Your task to perform on an android device: Clear the cart on bestbuy.com. Add "razer blade" to the cart on bestbuy.com Image 0: 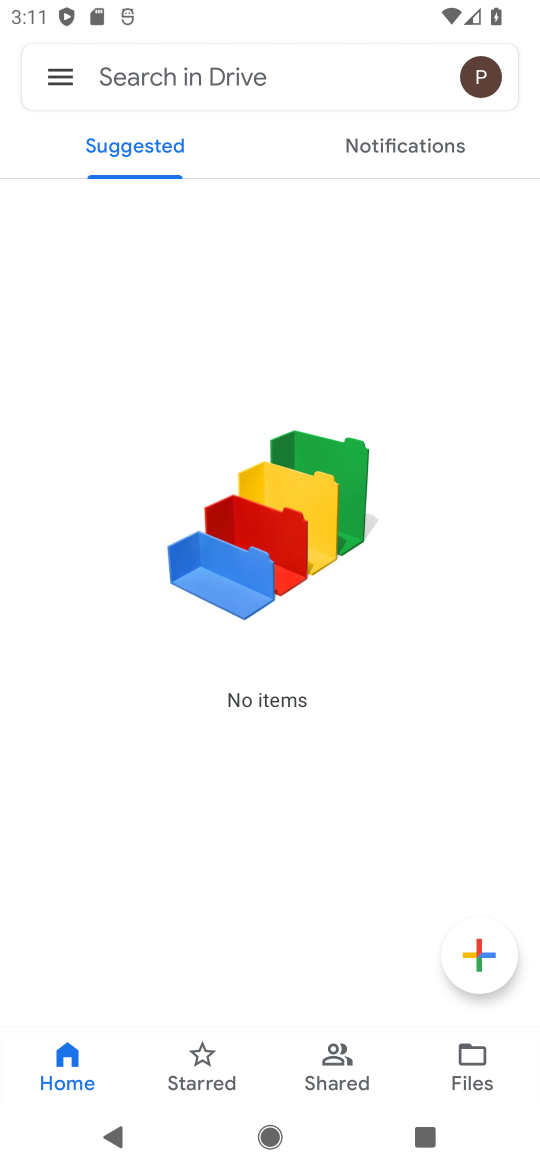
Step 0: press home button
Your task to perform on an android device: Clear the cart on bestbuy.com. Add "razer blade" to the cart on bestbuy.com Image 1: 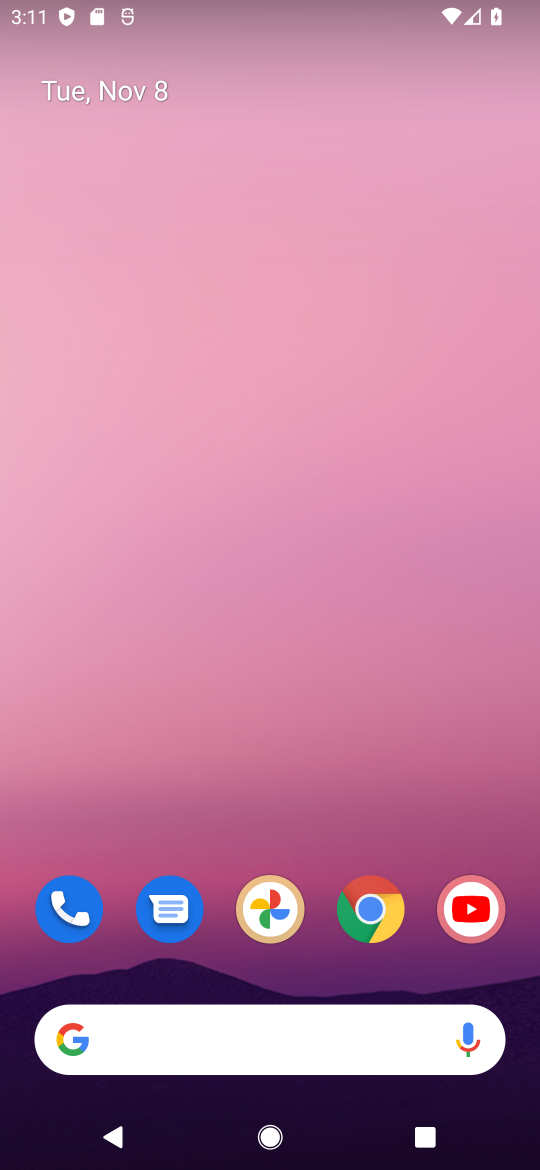
Step 1: click (388, 893)
Your task to perform on an android device: Clear the cart on bestbuy.com. Add "razer blade" to the cart on bestbuy.com Image 2: 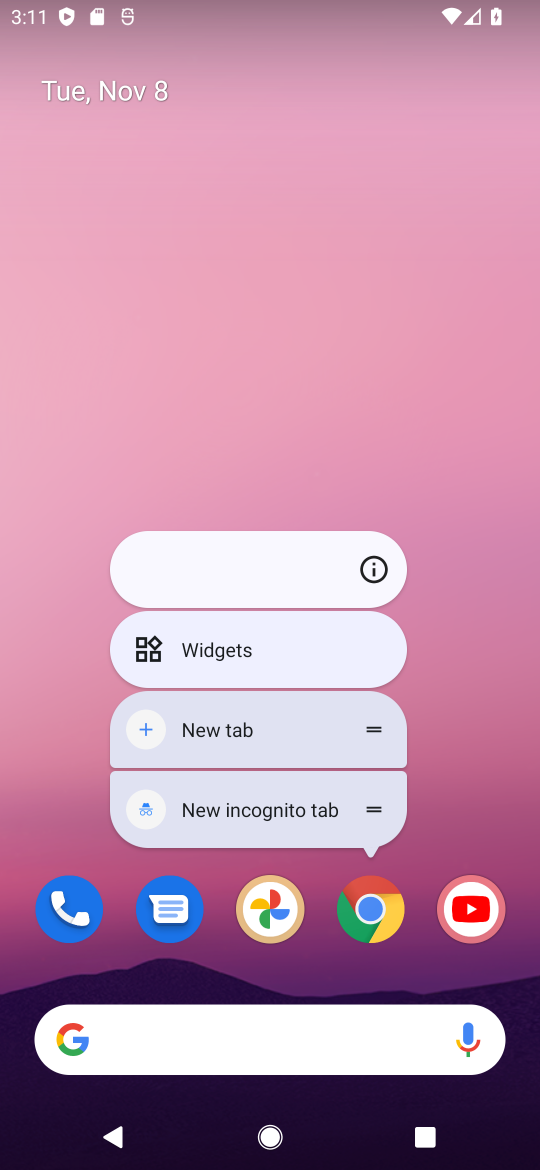
Step 2: click (375, 907)
Your task to perform on an android device: Clear the cart on bestbuy.com. Add "razer blade" to the cart on bestbuy.com Image 3: 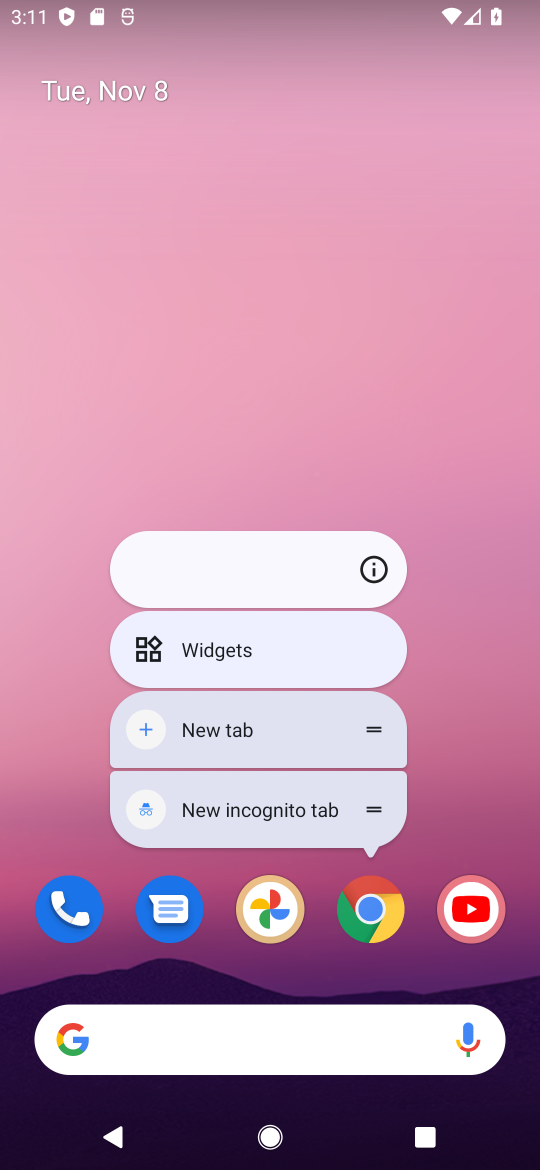
Step 3: click (365, 916)
Your task to perform on an android device: Clear the cart on bestbuy.com. Add "razer blade" to the cart on bestbuy.com Image 4: 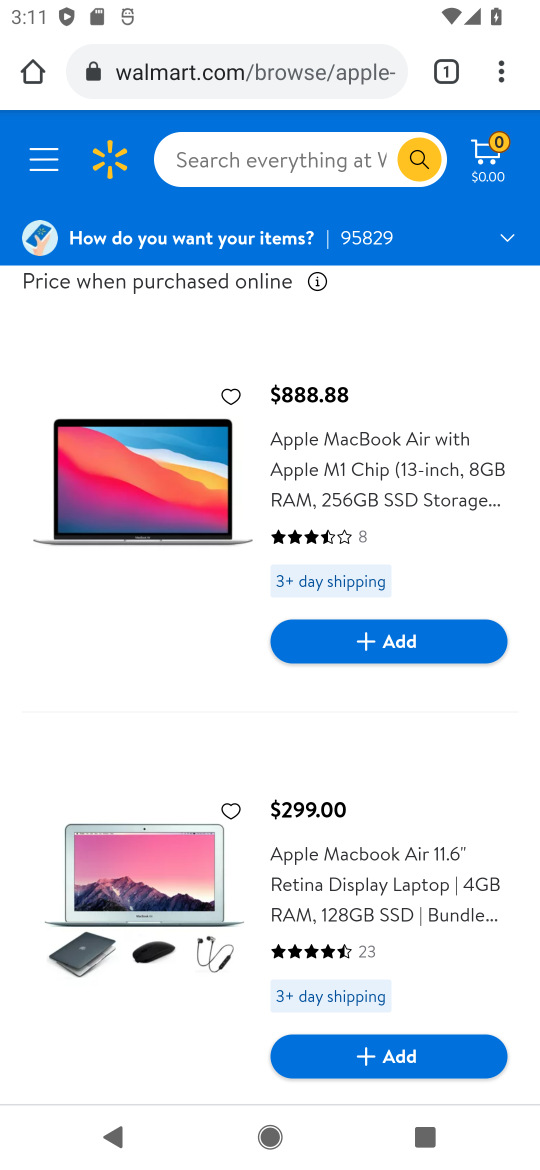
Step 4: click (297, 66)
Your task to perform on an android device: Clear the cart on bestbuy.com. Add "razer blade" to the cart on bestbuy.com Image 5: 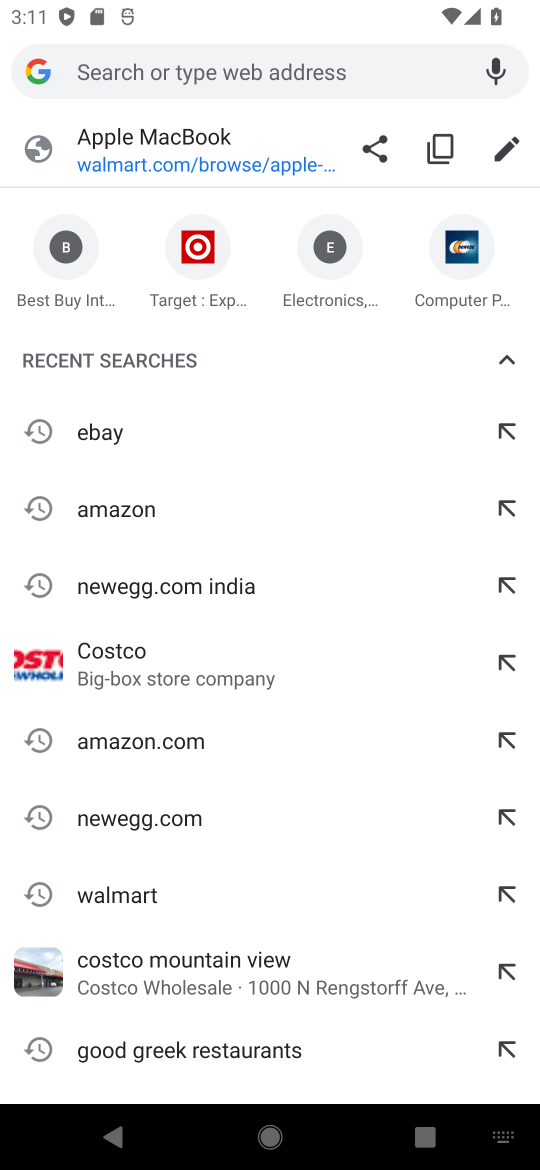
Step 5: type " bestbuy.com"
Your task to perform on an android device: Clear the cart on bestbuy.com. Add "razer blade" to the cart on bestbuy.com Image 6: 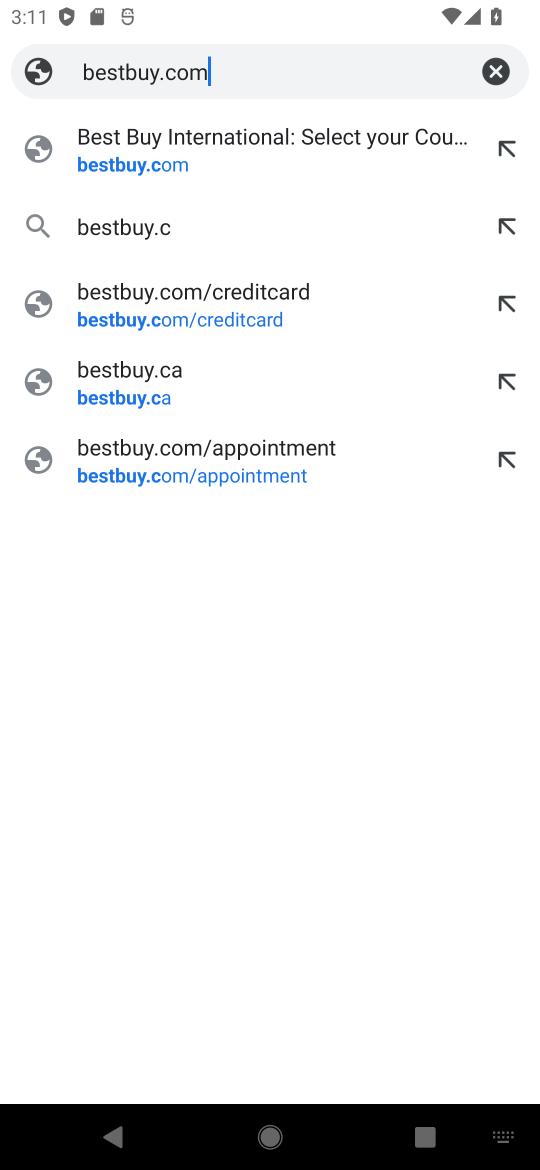
Step 6: press enter
Your task to perform on an android device: Clear the cart on bestbuy.com. Add "razer blade" to the cart on bestbuy.com Image 7: 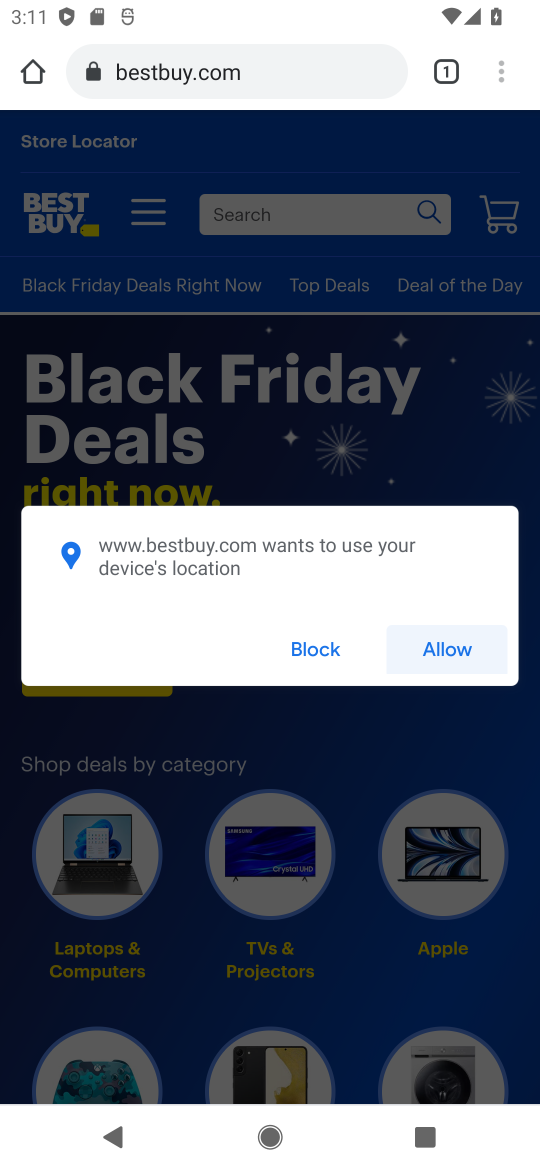
Step 7: click (333, 640)
Your task to perform on an android device: Clear the cart on bestbuy.com. Add "razer blade" to the cart on bestbuy.com Image 8: 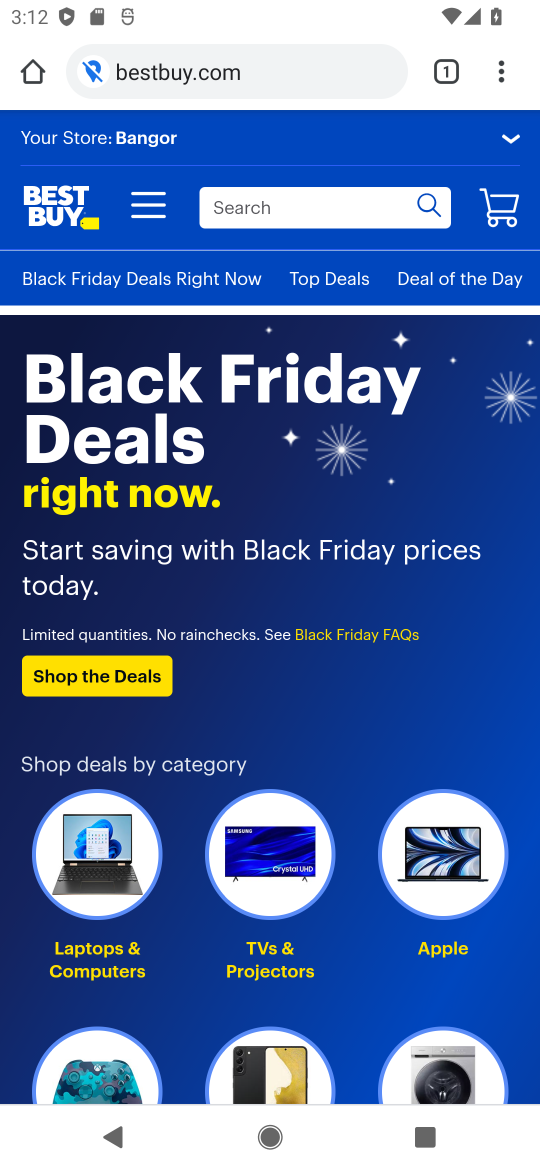
Step 8: click (305, 207)
Your task to perform on an android device: Clear the cart on bestbuy.com. Add "razer blade" to the cart on bestbuy.com Image 9: 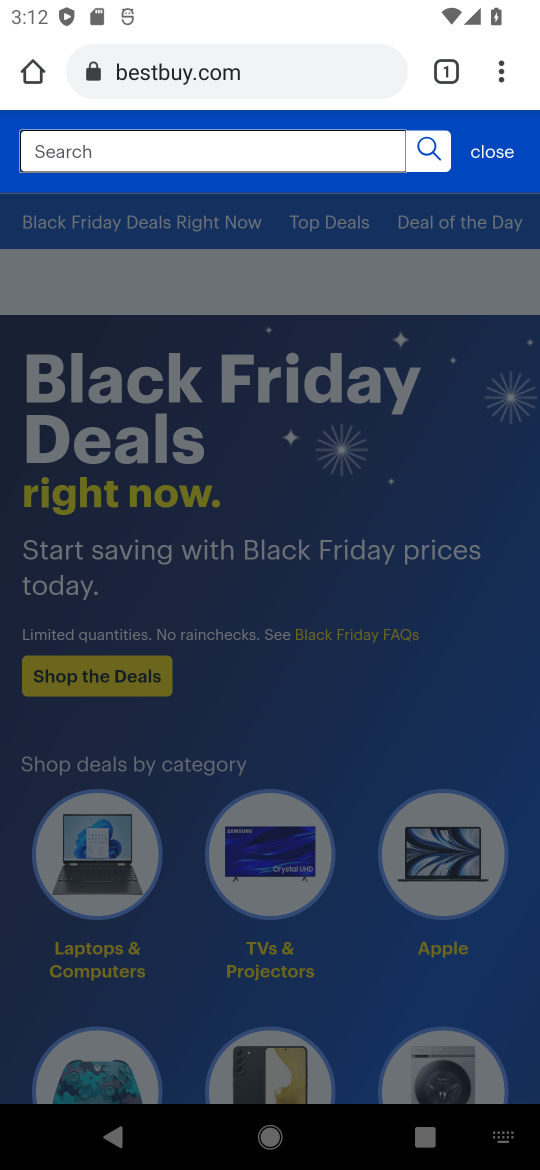
Step 9: type "razer blade"
Your task to perform on an android device: Clear the cart on bestbuy.com. Add "razer blade" to the cart on bestbuy.com Image 10: 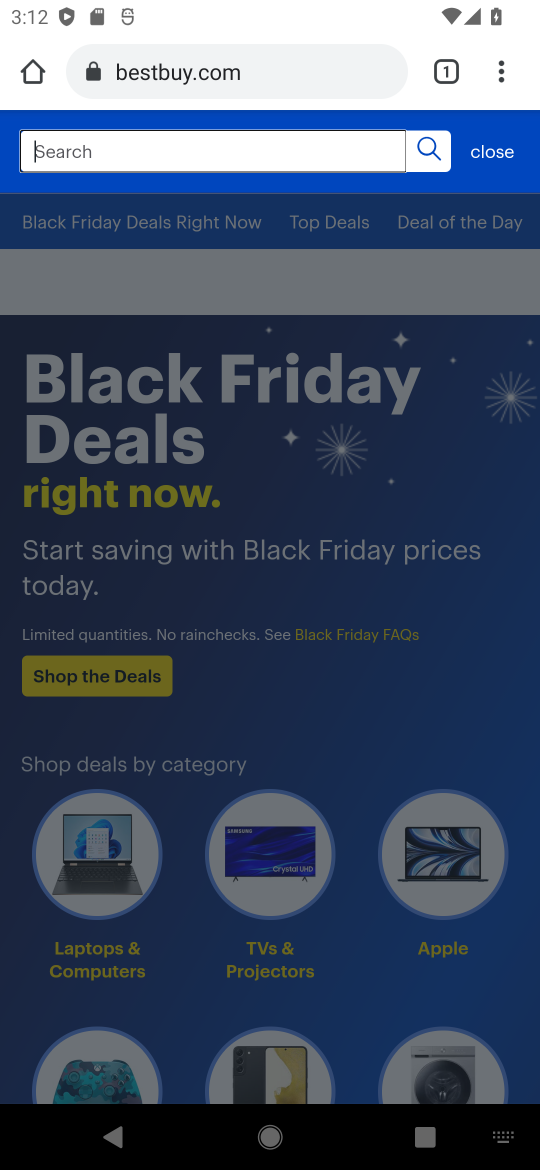
Step 10: press enter
Your task to perform on an android device: Clear the cart on bestbuy.com. Add "razer blade" to the cart on bestbuy.com Image 11: 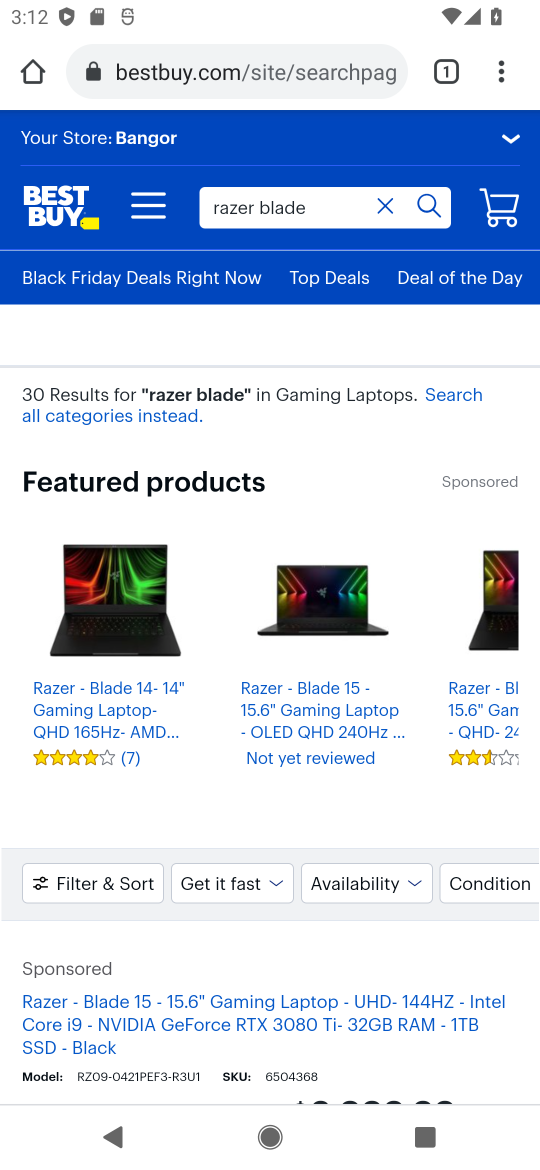
Step 11: drag from (215, 944) to (303, 381)
Your task to perform on an android device: Clear the cart on bestbuy.com. Add "razer blade" to the cart on bestbuy.com Image 12: 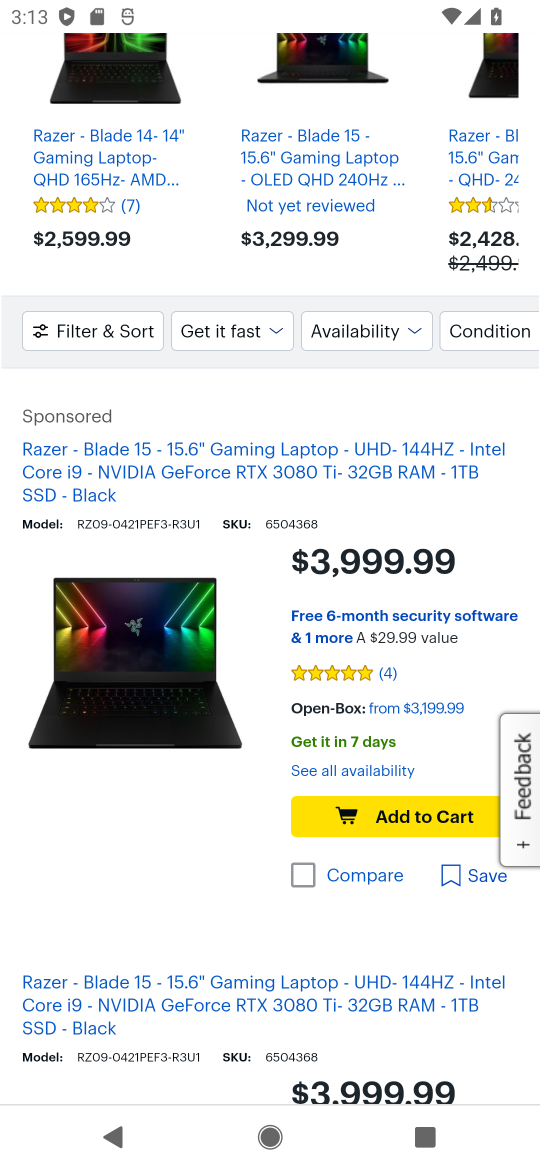
Step 12: click (422, 818)
Your task to perform on an android device: Clear the cart on bestbuy.com. Add "razer blade" to the cart on bestbuy.com Image 13: 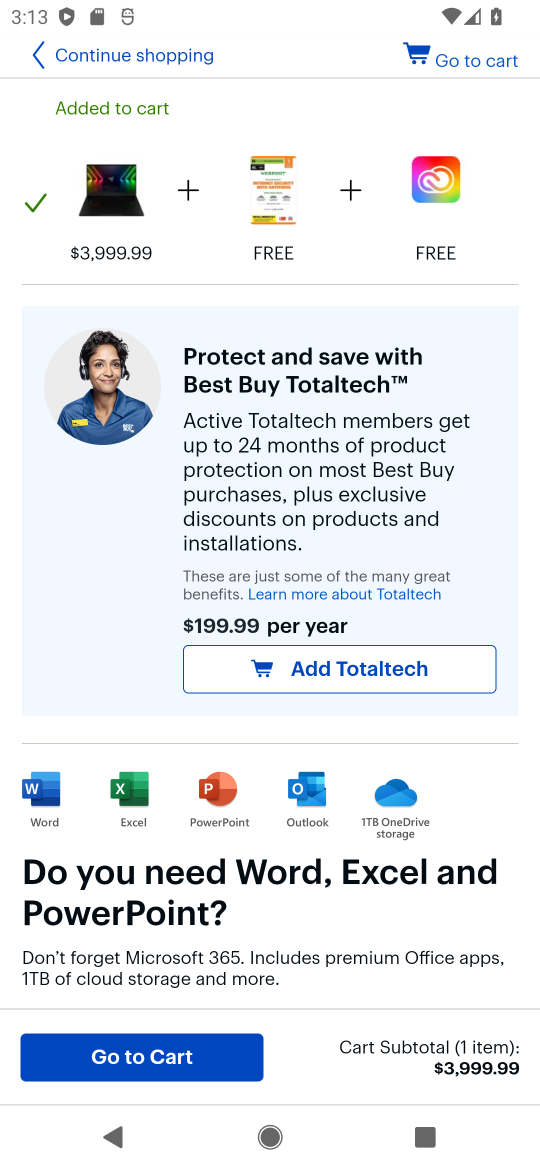
Step 13: click (502, 64)
Your task to perform on an android device: Clear the cart on bestbuy.com. Add "razer blade" to the cart on bestbuy.com Image 14: 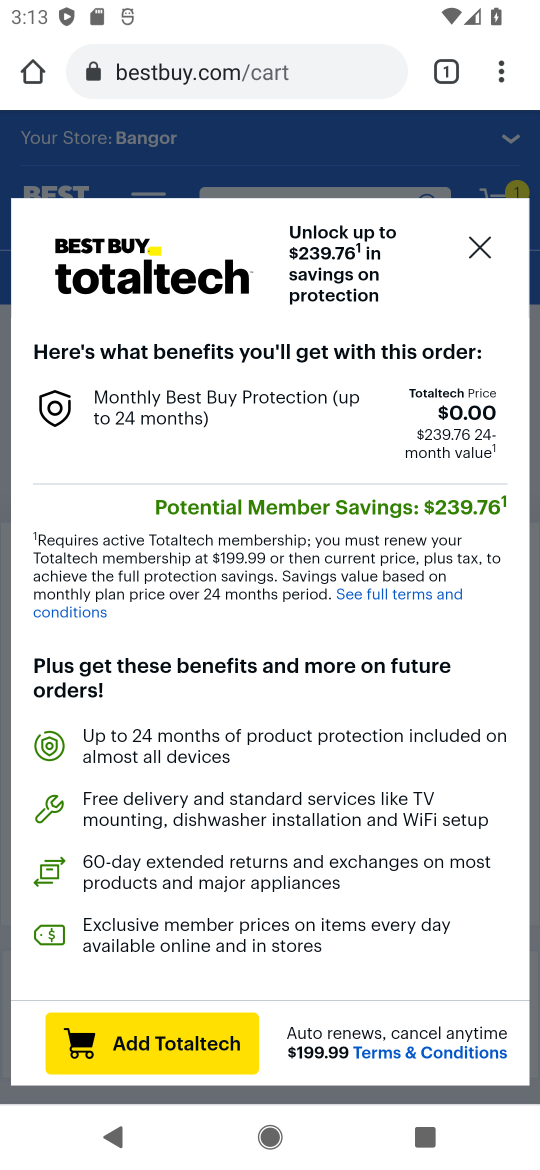
Step 14: click (483, 242)
Your task to perform on an android device: Clear the cart on bestbuy.com. Add "razer blade" to the cart on bestbuy.com Image 15: 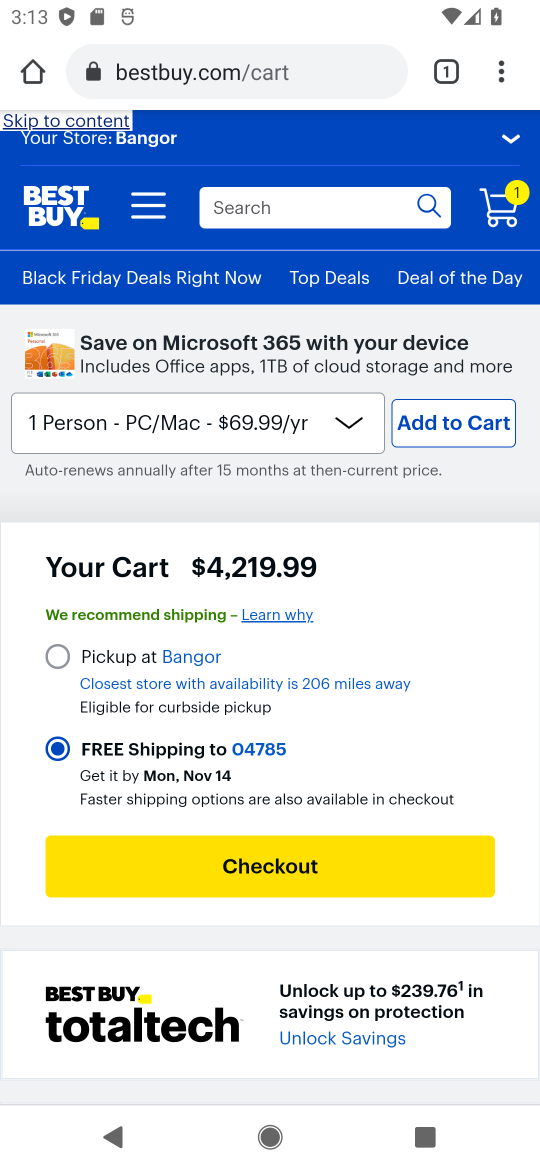
Step 15: task complete